Your task to perform on an android device: Do I have any events this weekend? Image 0: 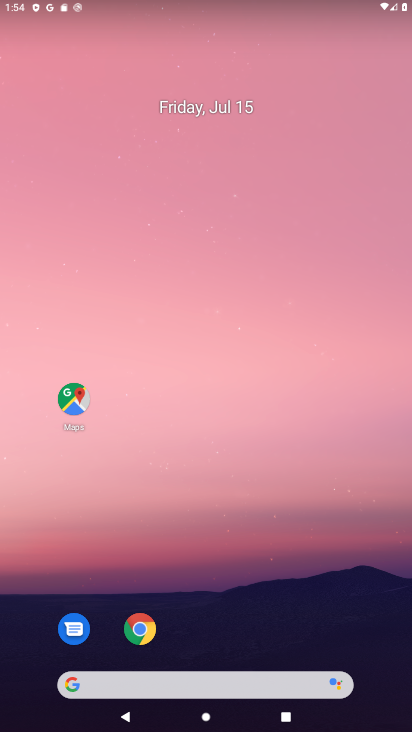
Step 0: drag from (194, 604) to (145, 120)
Your task to perform on an android device: Do I have any events this weekend? Image 1: 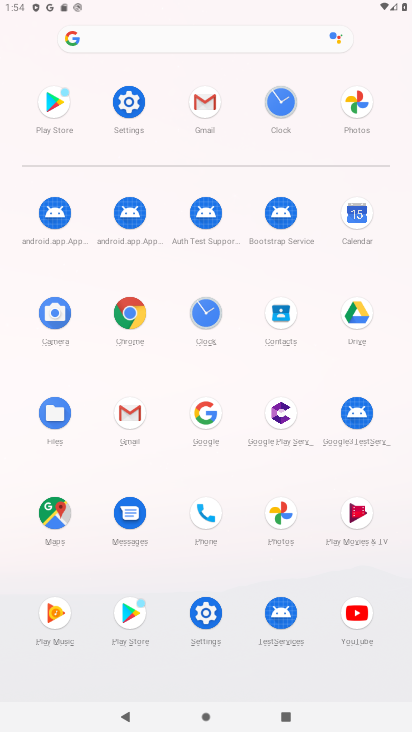
Step 1: click (357, 229)
Your task to perform on an android device: Do I have any events this weekend? Image 2: 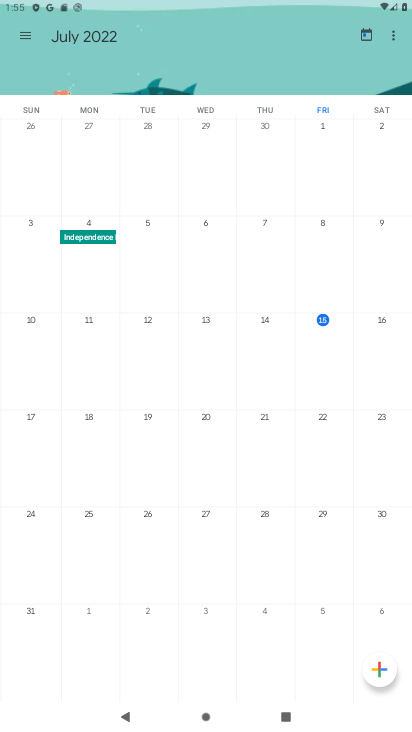
Step 2: click (18, 37)
Your task to perform on an android device: Do I have any events this weekend? Image 3: 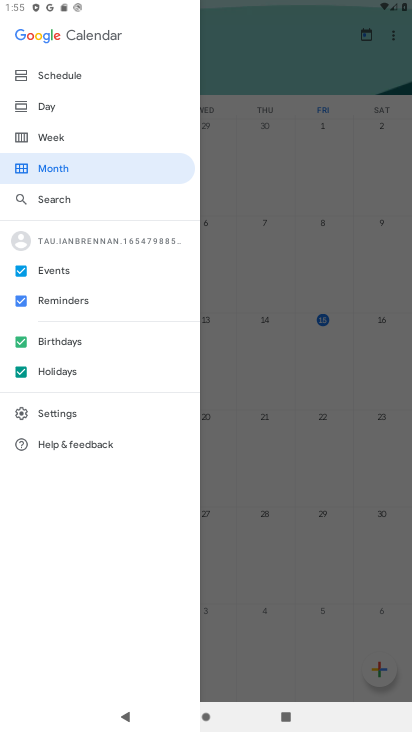
Step 3: click (59, 141)
Your task to perform on an android device: Do I have any events this weekend? Image 4: 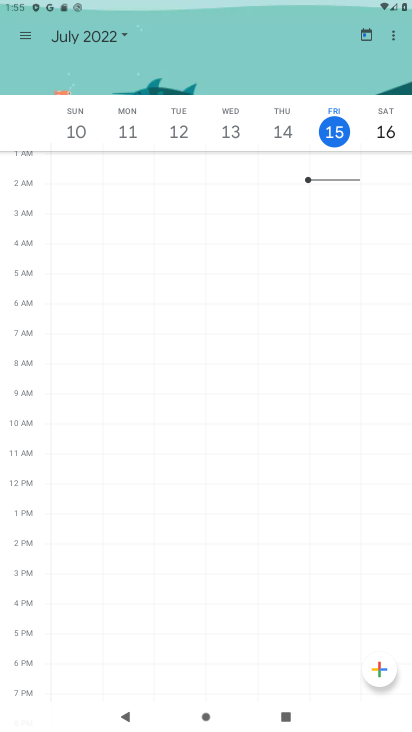
Step 4: task complete